Your task to perform on an android device: Go to wifi settings Image 0: 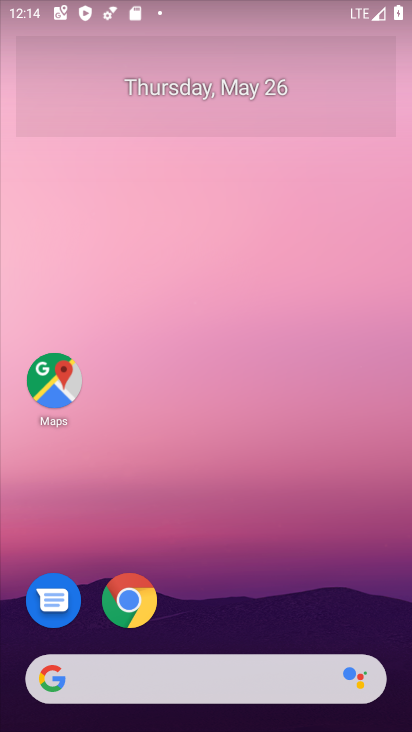
Step 0: drag from (332, 562) to (290, 160)
Your task to perform on an android device: Go to wifi settings Image 1: 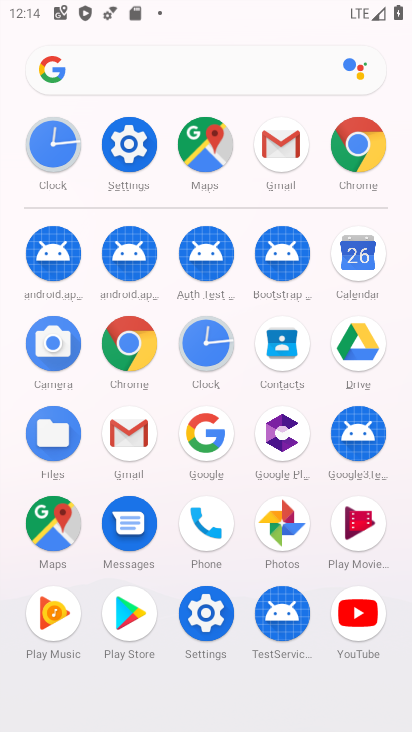
Step 1: click (122, 131)
Your task to perform on an android device: Go to wifi settings Image 2: 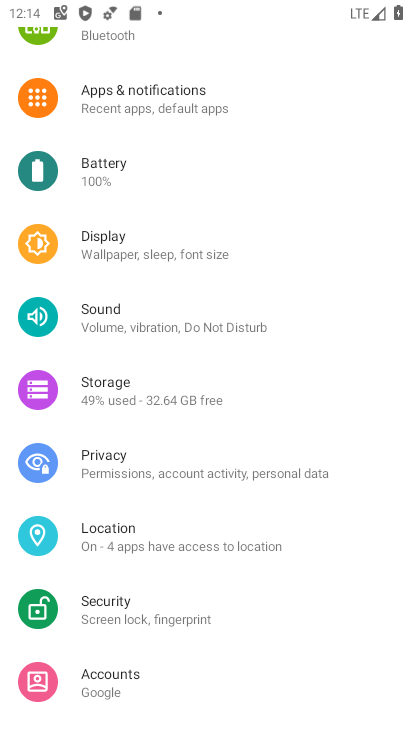
Step 2: drag from (266, 201) to (232, 593)
Your task to perform on an android device: Go to wifi settings Image 3: 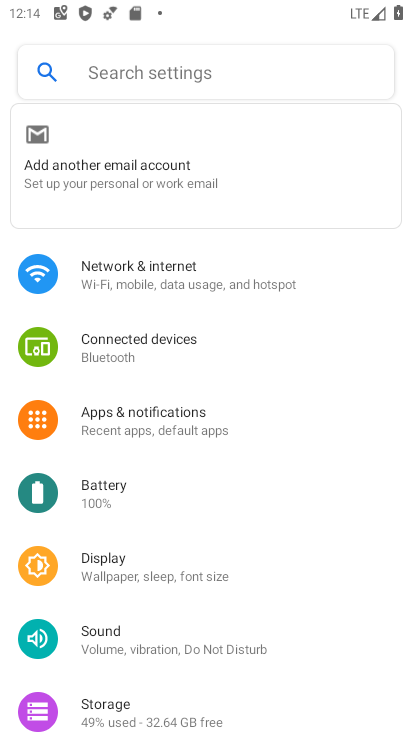
Step 3: click (190, 258)
Your task to perform on an android device: Go to wifi settings Image 4: 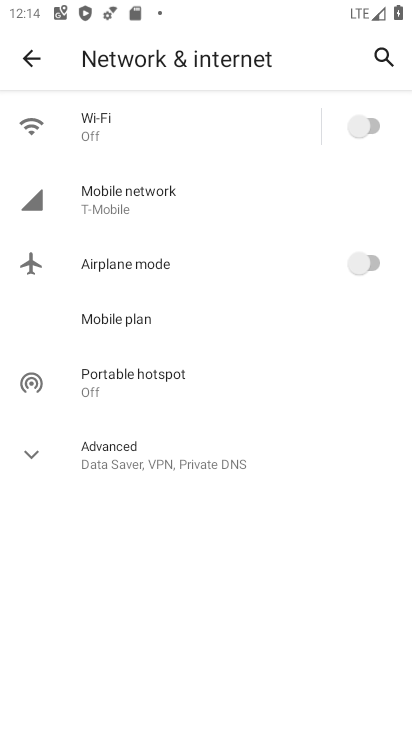
Step 4: click (146, 122)
Your task to perform on an android device: Go to wifi settings Image 5: 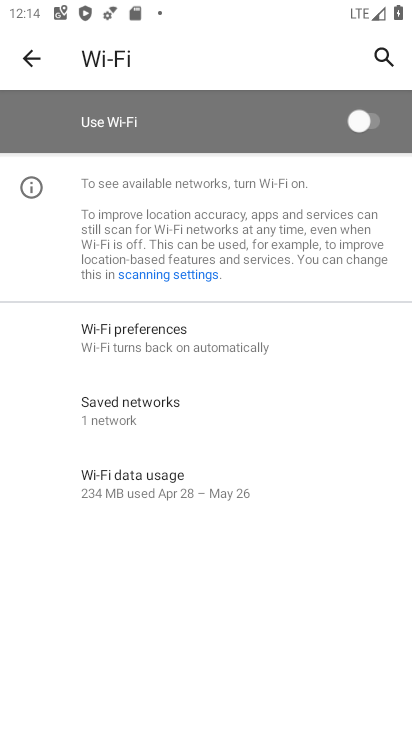
Step 5: click (364, 122)
Your task to perform on an android device: Go to wifi settings Image 6: 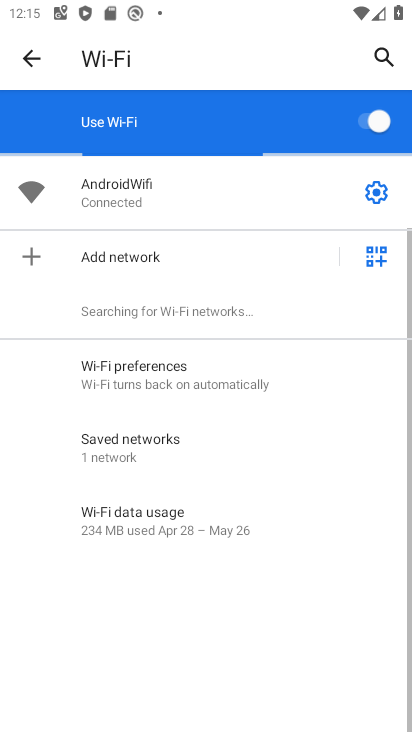
Step 6: click (378, 191)
Your task to perform on an android device: Go to wifi settings Image 7: 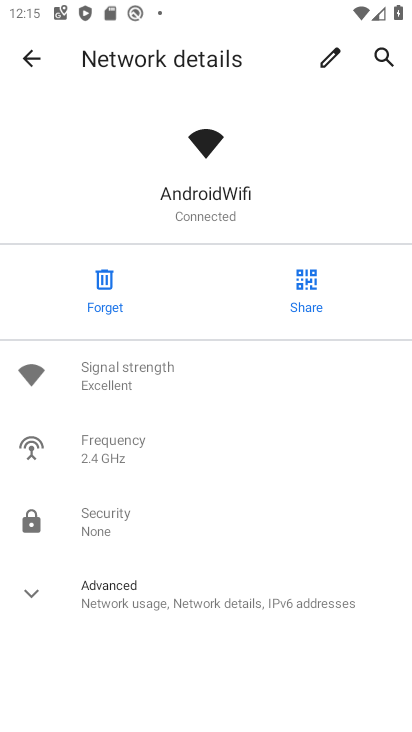
Step 7: task complete